Your task to perform on an android device: find which apps use the phone's location Image 0: 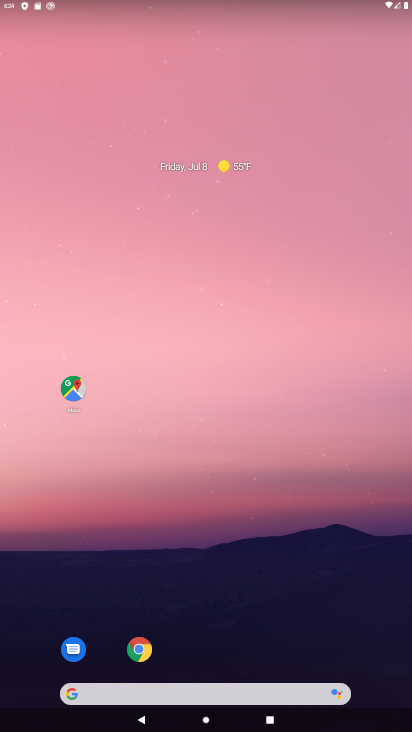
Step 0: press home button
Your task to perform on an android device: find which apps use the phone's location Image 1: 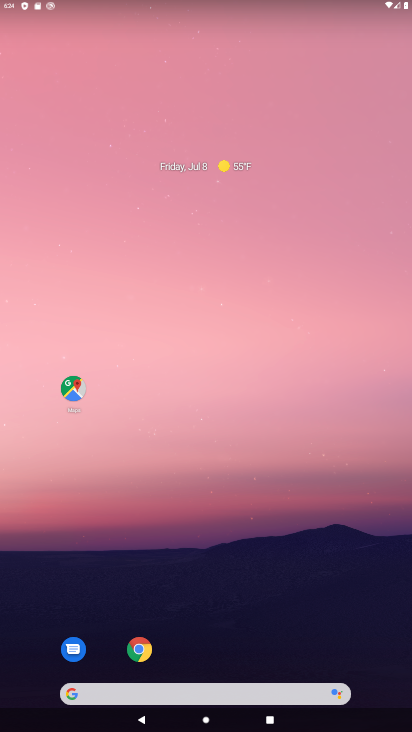
Step 1: drag from (261, 674) to (298, 57)
Your task to perform on an android device: find which apps use the phone's location Image 2: 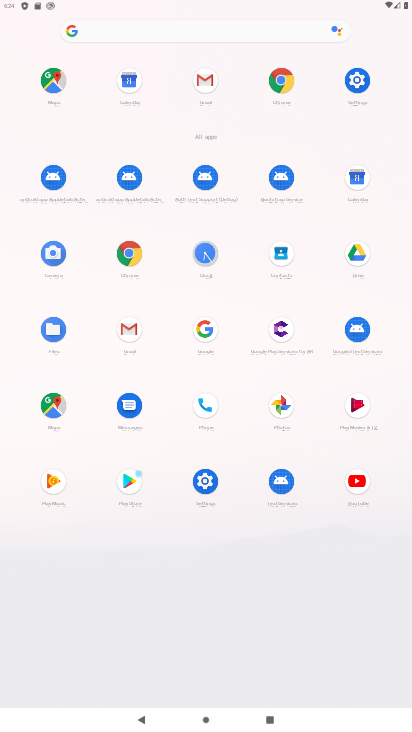
Step 2: click (358, 76)
Your task to perform on an android device: find which apps use the phone's location Image 3: 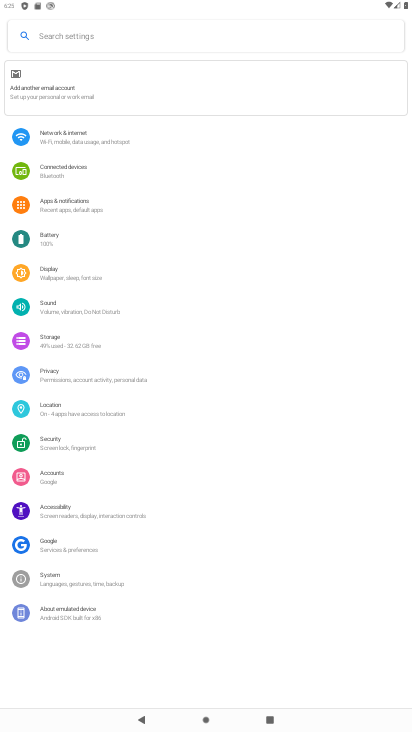
Step 3: click (84, 413)
Your task to perform on an android device: find which apps use the phone's location Image 4: 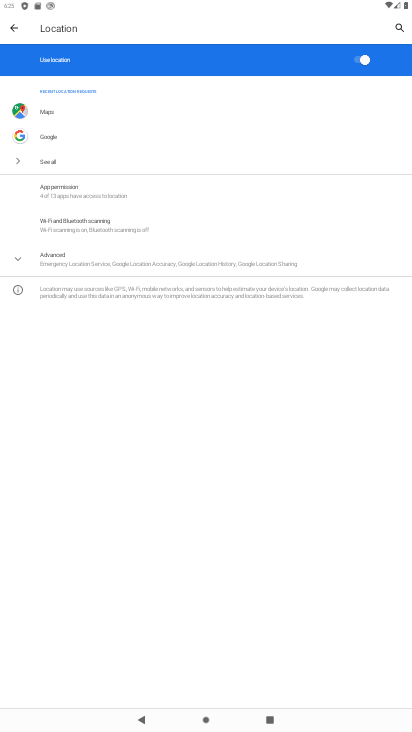
Step 4: click (93, 257)
Your task to perform on an android device: find which apps use the phone's location Image 5: 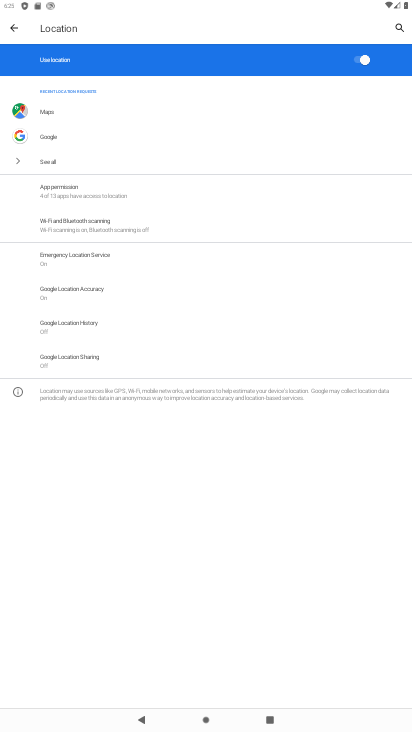
Step 5: click (70, 192)
Your task to perform on an android device: find which apps use the phone's location Image 6: 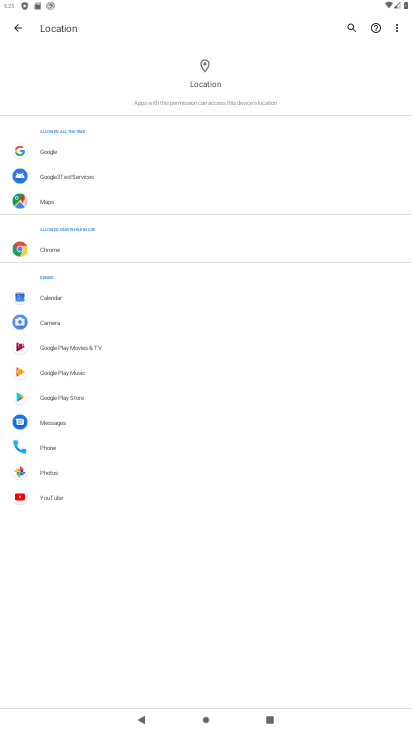
Step 6: task complete